Your task to perform on an android device: snooze an email in the gmail app Image 0: 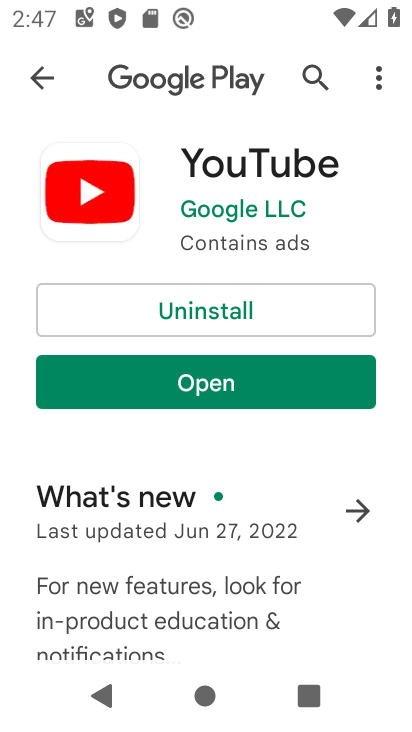
Step 0: press home button
Your task to perform on an android device: snooze an email in the gmail app Image 1: 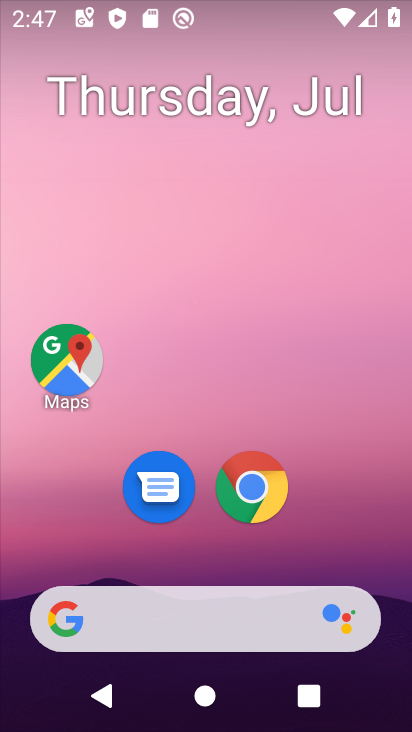
Step 1: drag from (371, 537) to (381, 163)
Your task to perform on an android device: snooze an email in the gmail app Image 2: 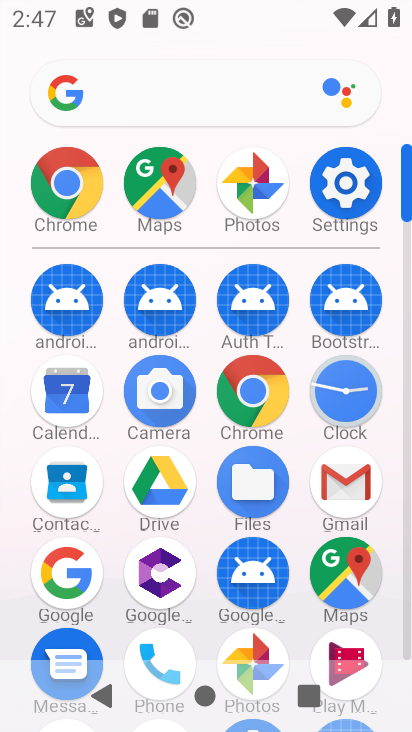
Step 2: click (350, 475)
Your task to perform on an android device: snooze an email in the gmail app Image 3: 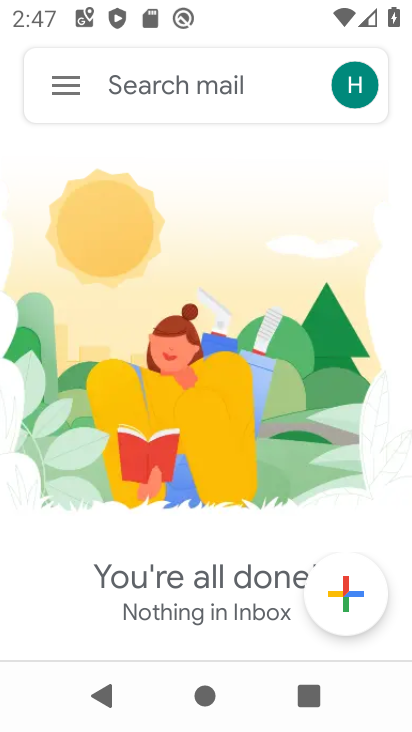
Step 3: click (74, 89)
Your task to perform on an android device: snooze an email in the gmail app Image 4: 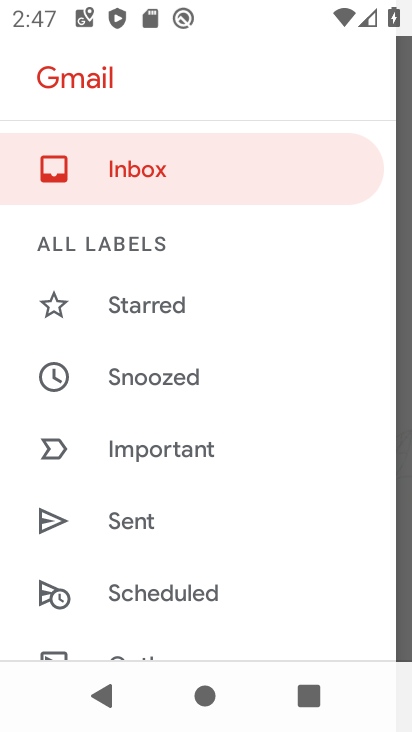
Step 4: drag from (305, 396) to (308, 308)
Your task to perform on an android device: snooze an email in the gmail app Image 5: 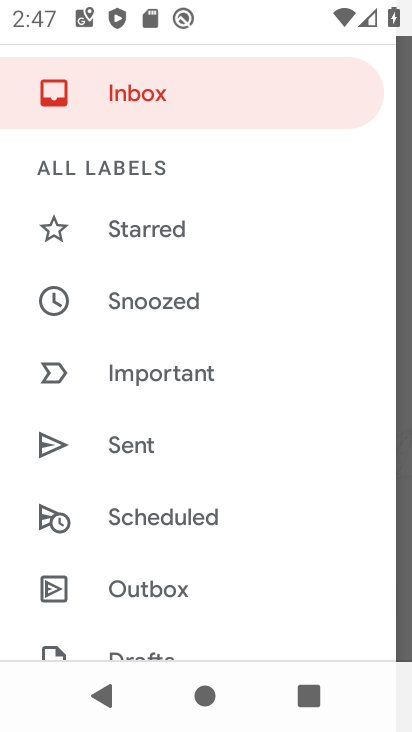
Step 5: drag from (291, 453) to (299, 336)
Your task to perform on an android device: snooze an email in the gmail app Image 6: 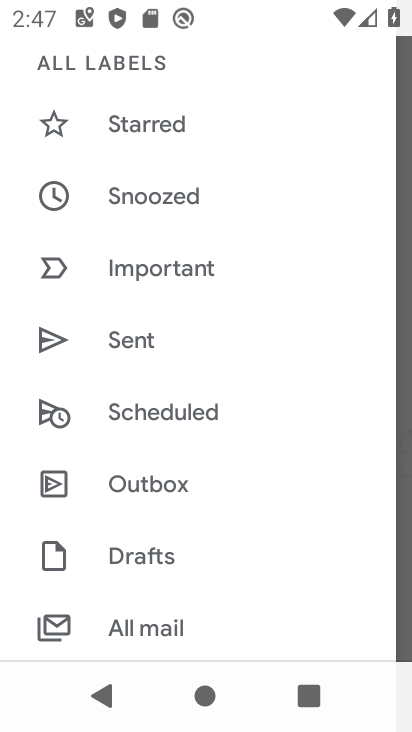
Step 6: click (248, 209)
Your task to perform on an android device: snooze an email in the gmail app Image 7: 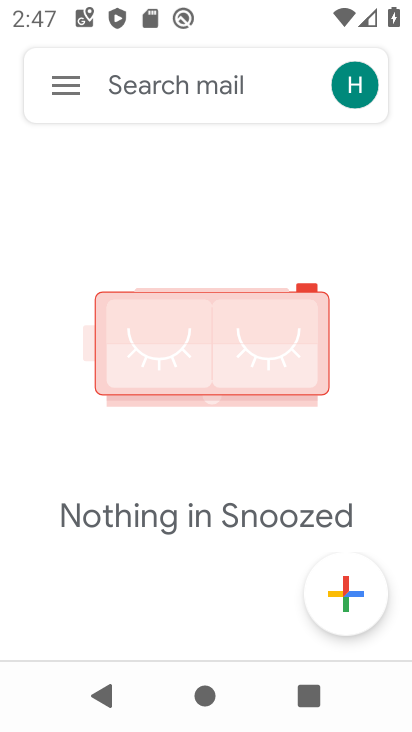
Step 7: task complete